Your task to perform on an android device: See recent photos Image 0: 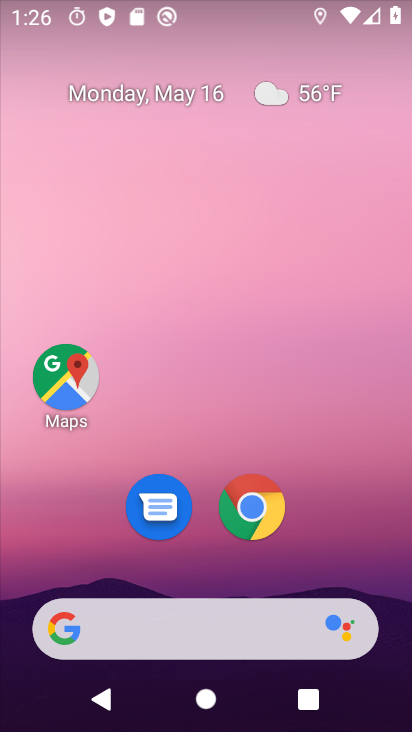
Step 0: drag from (193, 539) to (216, 89)
Your task to perform on an android device: See recent photos Image 1: 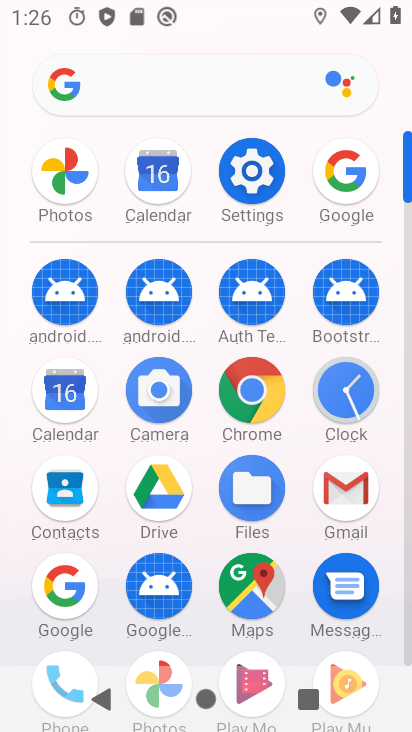
Step 1: click (74, 159)
Your task to perform on an android device: See recent photos Image 2: 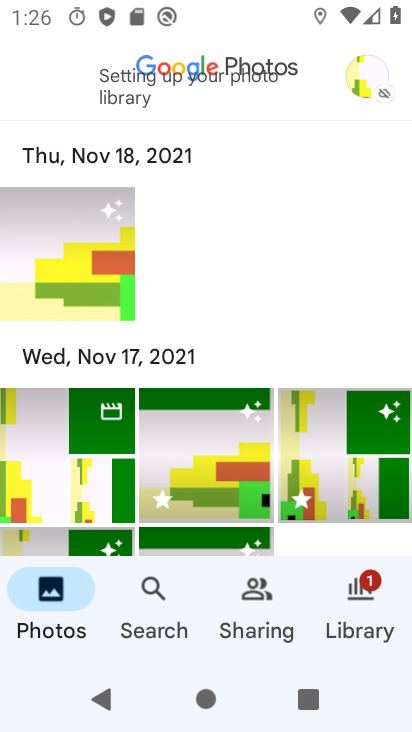
Step 2: task complete